Your task to perform on an android device: choose inbox layout in the gmail app Image 0: 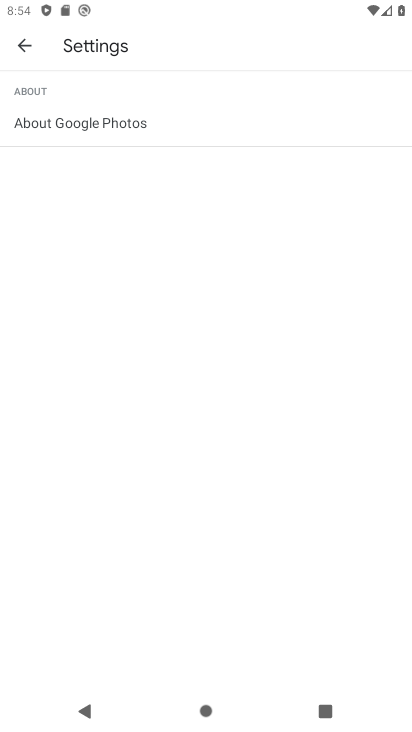
Step 0: press home button
Your task to perform on an android device: choose inbox layout in the gmail app Image 1: 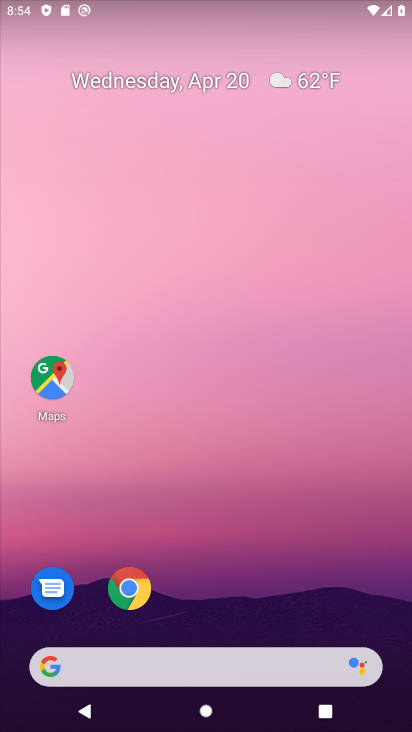
Step 1: drag from (209, 622) to (207, 2)
Your task to perform on an android device: choose inbox layout in the gmail app Image 2: 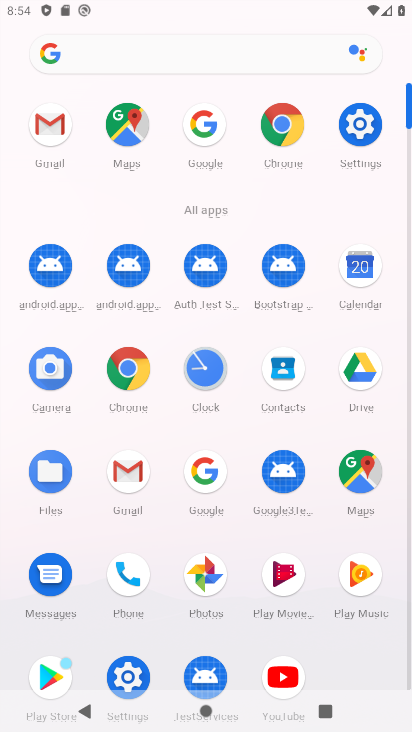
Step 2: click (126, 463)
Your task to perform on an android device: choose inbox layout in the gmail app Image 3: 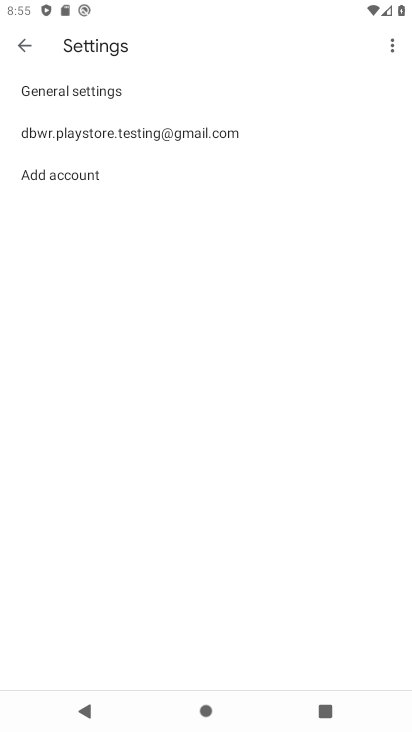
Step 3: click (152, 130)
Your task to perform on an android device: choose inbox layout in the gmail app Image 4: 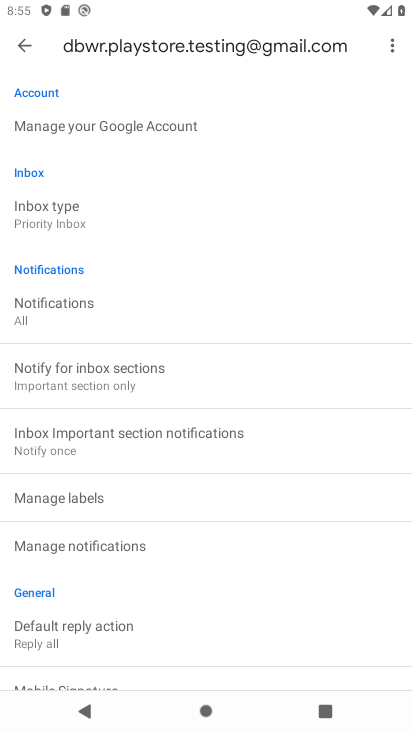
Step 4: click (94, 216)
Your task to perform on an android device: choose inbox layout in the gmail app Image 5: 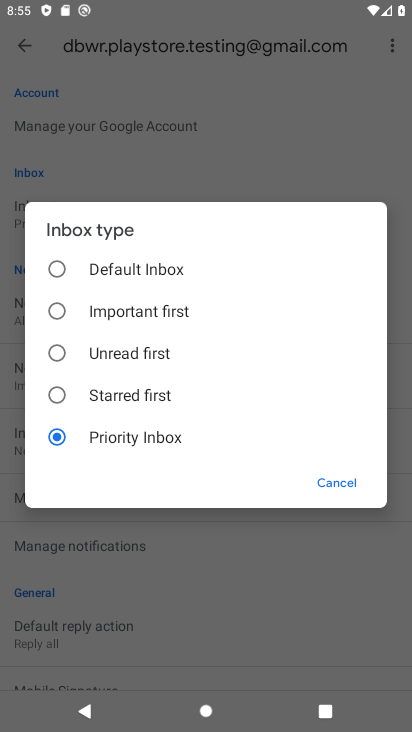
Step 5: click (56, 267)
Your task to perform on an android device: choose inbox layout in the gmail app Image 6: 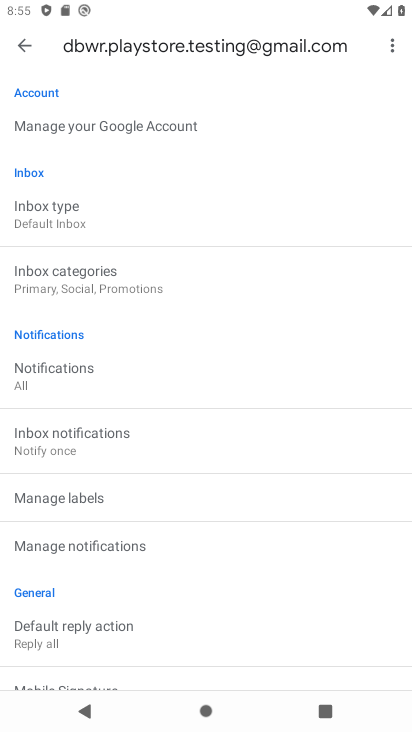
Step 6: task complete